Your task to perform on an android device: What's on my calendar today? Image 0: 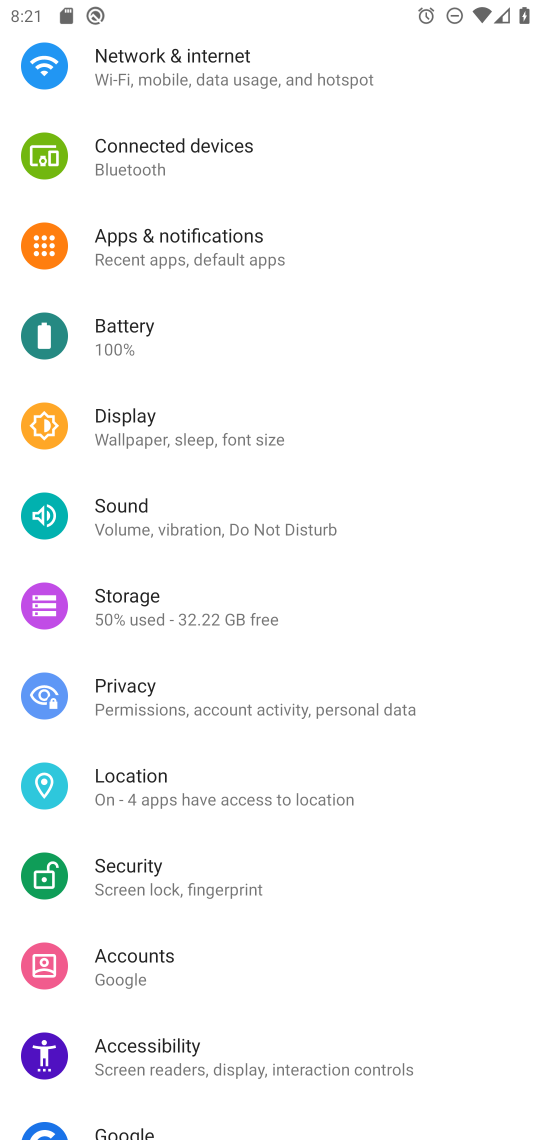
Step 0: press home button
Your task to perform on an android device: What's on my calendar today? Image 1: 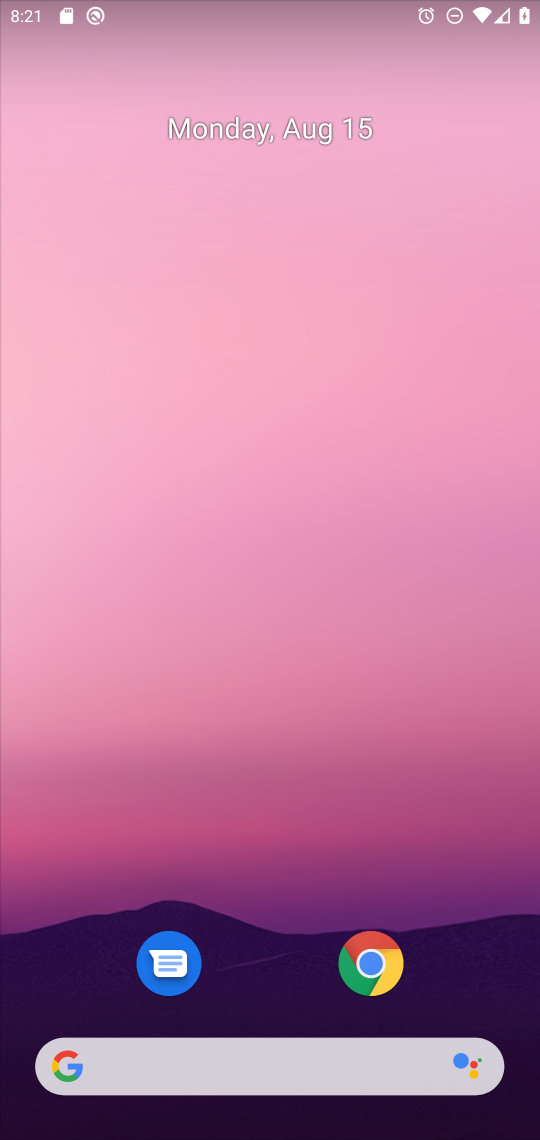
Step 1: click (216, 133)
Your task to perform on an android device: What's on my calendar today? Image 2: 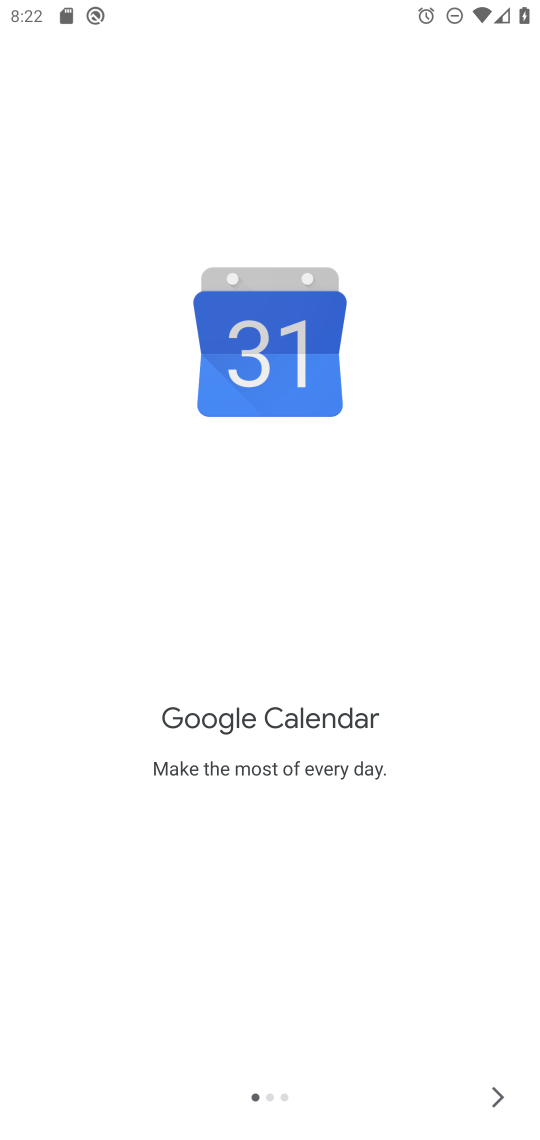
Step 2: click (494, 1099)
Your task to perform on an android device: What's on my calendar today? Image 3: 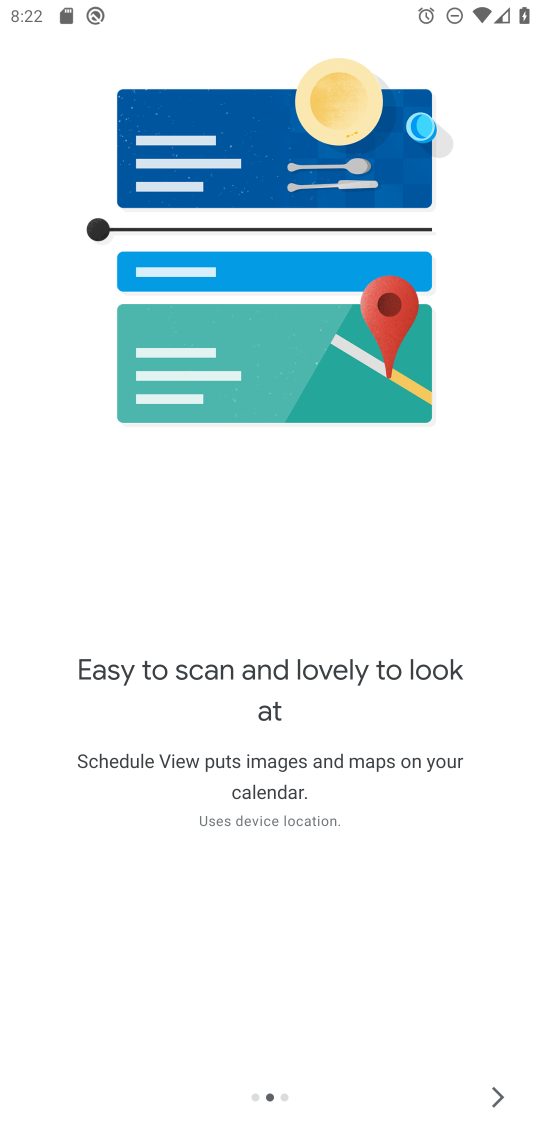
Step 3: click (494, 1099)
Your task to perform on an android device: What's on my calendar today? Image 4: 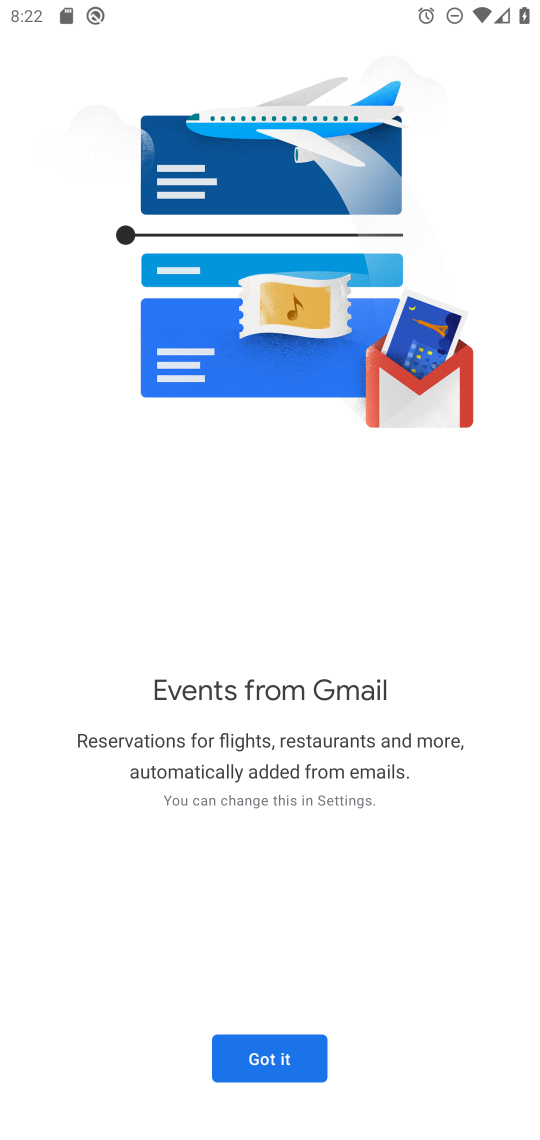
Step 4: click (261, 1059)
Your task to perform on an android device: What's on my calendar today? Image 5: 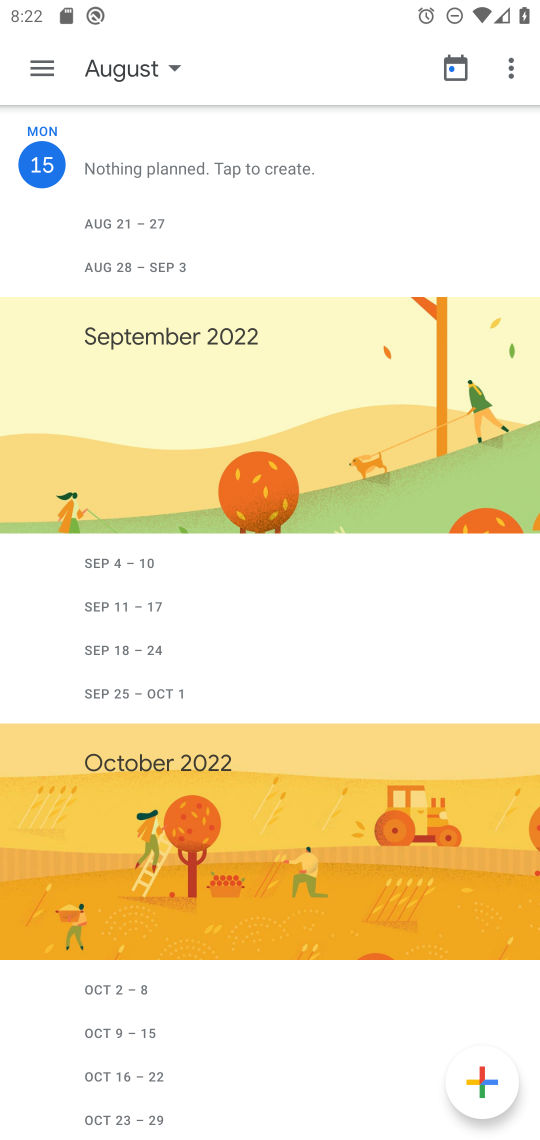
Step 5: task complete